Your task to perform on an android device: toggle pop-ups in chrome Image 0: 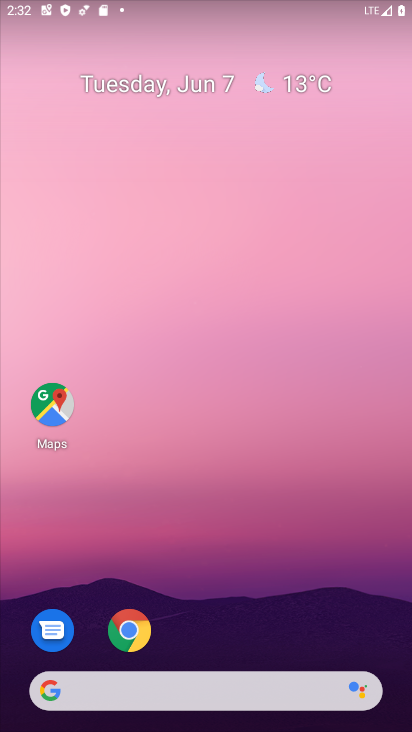
Step 0: click (134, 622)
Your task to perform on an android device: toggle pop-ups in chrome Image 1: 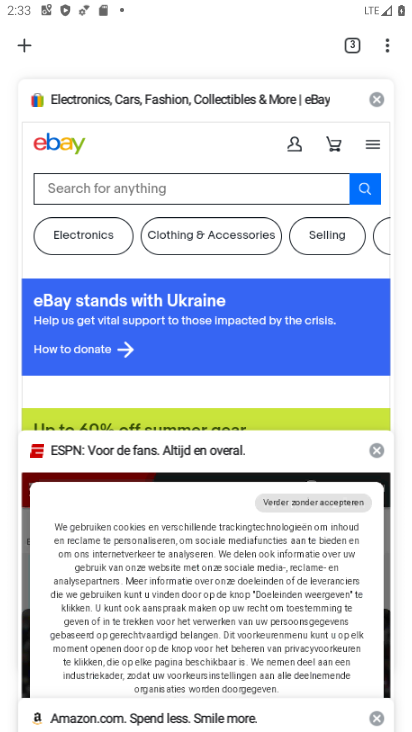
Step 1: click (387, 40)
Your task to perform on an android device: toggle pop-ups in chrome Image 2: 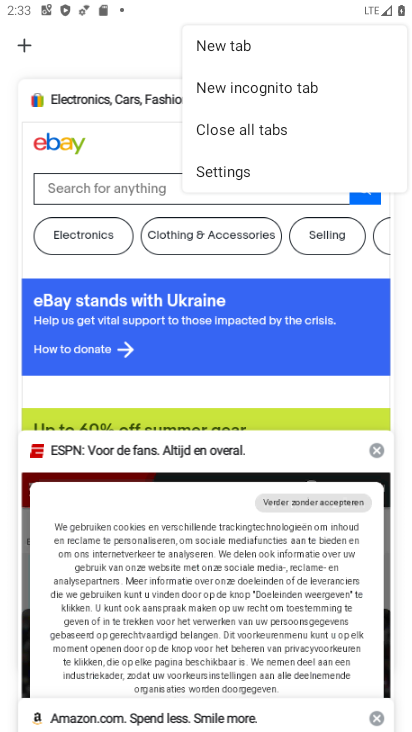
Step 2: click (250, 167)
Your task to perform on an android device: toggle pop-ups in chrome Image 3: 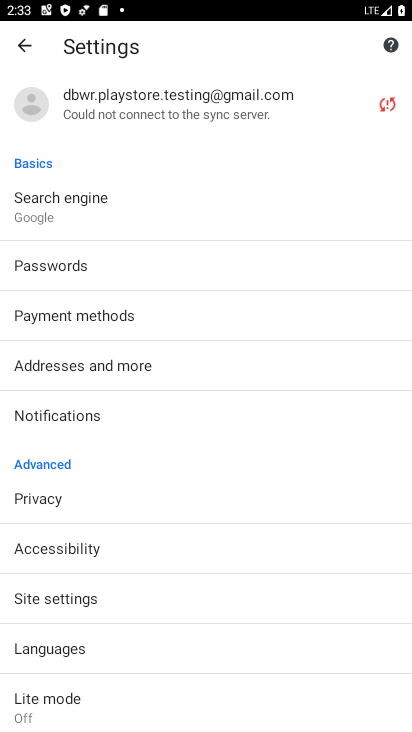
Step 3: click (83, 604)
Your task to perform on an android device: toggle pop-ups in chrome Image 4: 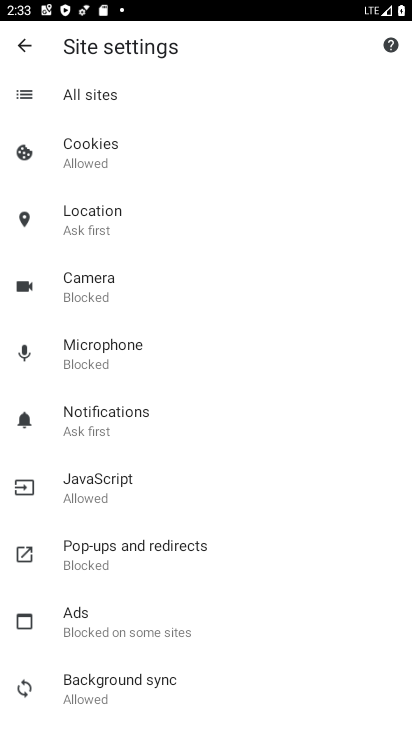
Step 4: click (98, 542)
Your task to perform on an android device: toggle pop-ups in chrome Image 5: 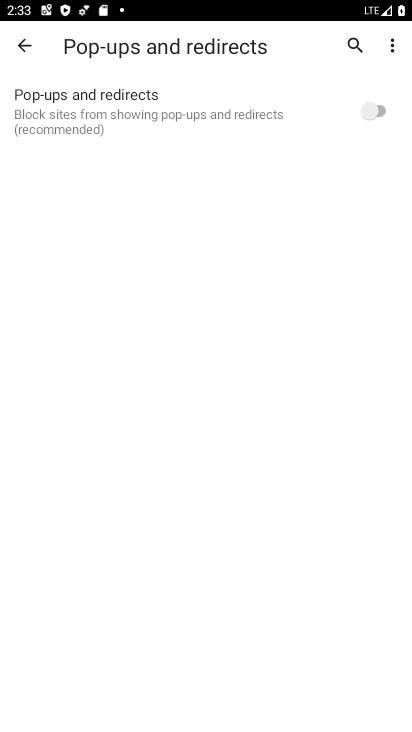
Step 5: click (360, 109)
Your task to perform on an android device: toggle pop-ups in chrome Image 6: 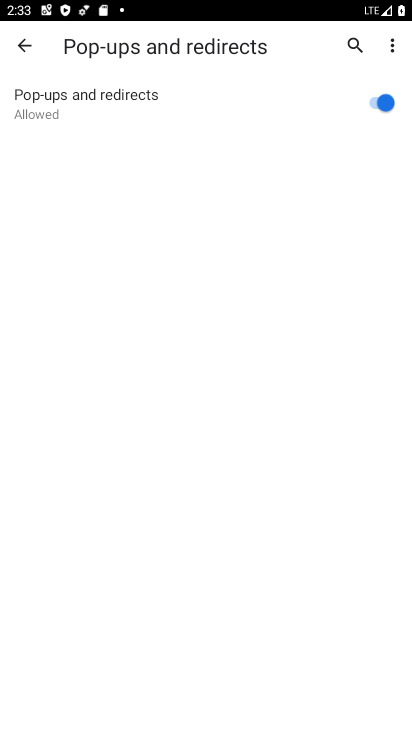
Step 6: task complete